Your task to perform on an android device: turn on the 24-hour format for clock Image 0: 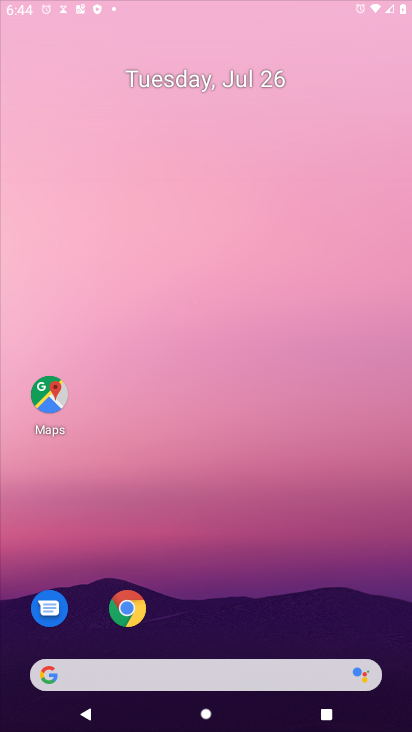
Step 0: press home button
Your task to perform on an android device: turn on the 24-hour format for clock Image 1: 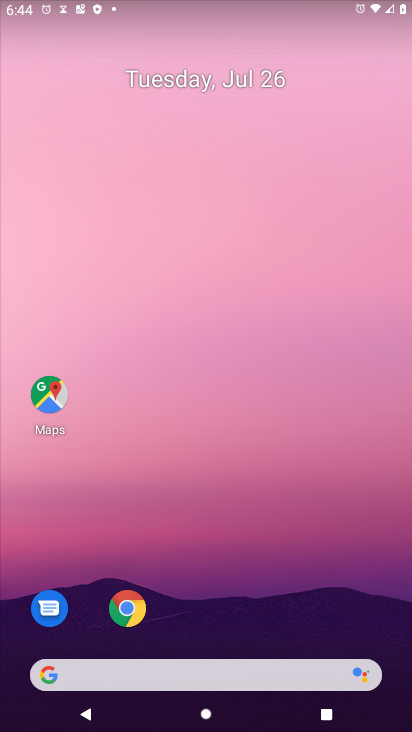
Step 1: drag from (235, 609) to (253, 68)
Your task to perform on an android device: turn on the 24-hour format for clock Image 2: 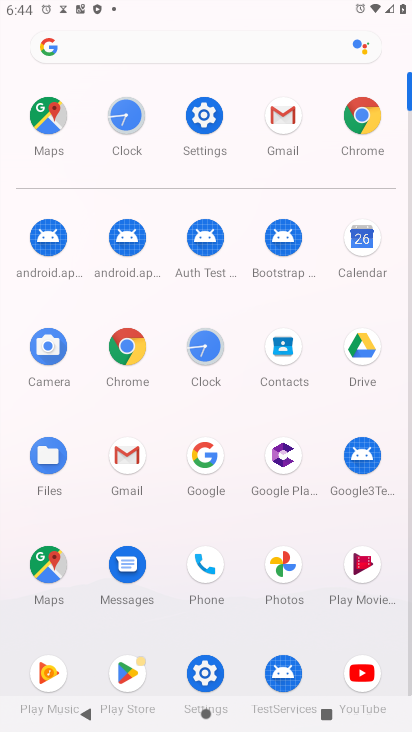
Step 2: click (194, 112)
Your task to perform on an android device: turn on the 24-hour format for clock Image 3: 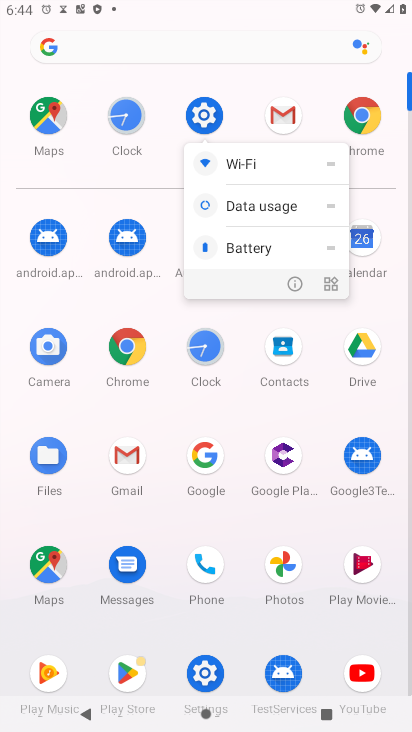
Step 3: click (194, 116)
Your task to perform on an android device: turn on the 24-hour format for clock Image 4: 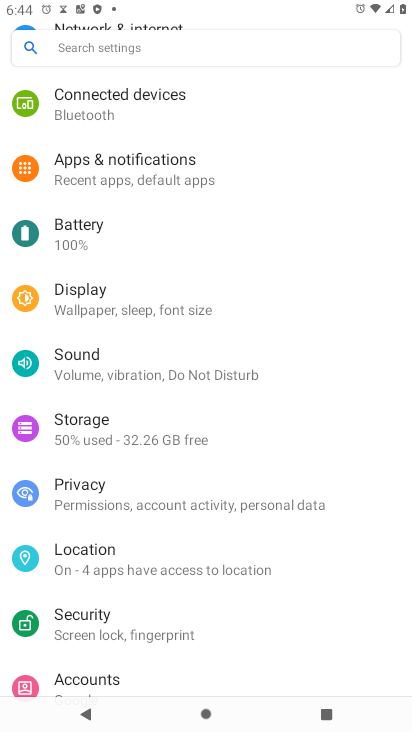
Step 4: drag from (267, 578) to (269, 247)
Your task to perform on an android device: turn on the 24-hour format for clock Image 5: 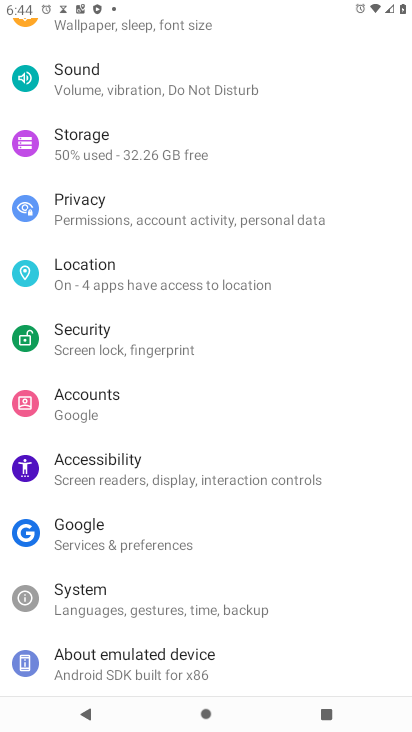
Step 5: click (128, 605)
Your task to perform on an android device: turn on the 24-hour format for clock Image 6: 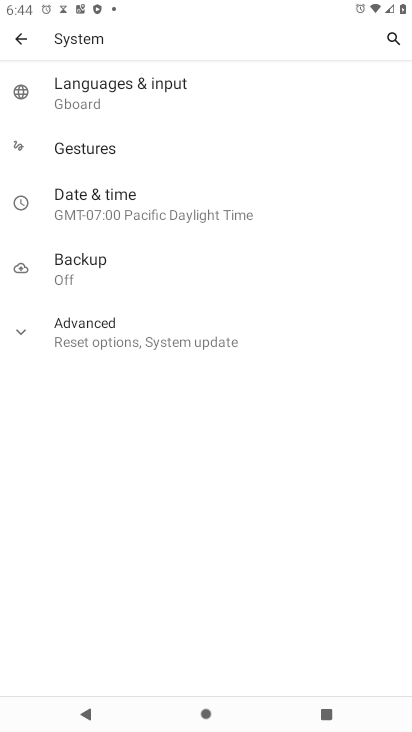
Step 6: click (144, 218)
Your task to perform on an android device: turn on the 24-hour format for clock Image 7: 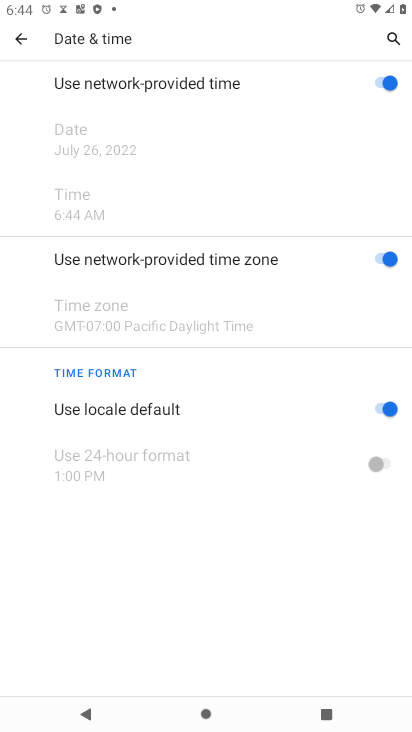
Step 7: click (389, 410)
Your task to perform on an android device: turn on the 24-hour format for clock Image 8: 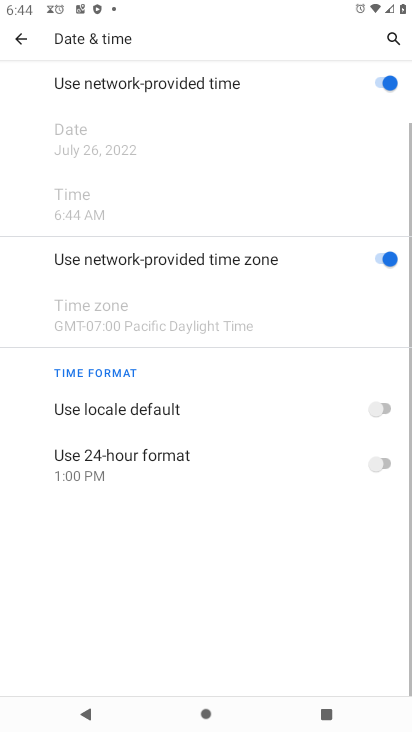
Step 8: click (370, 465)
Your task to perform on an android device: turn on the 24-hour format for clock Image 9: 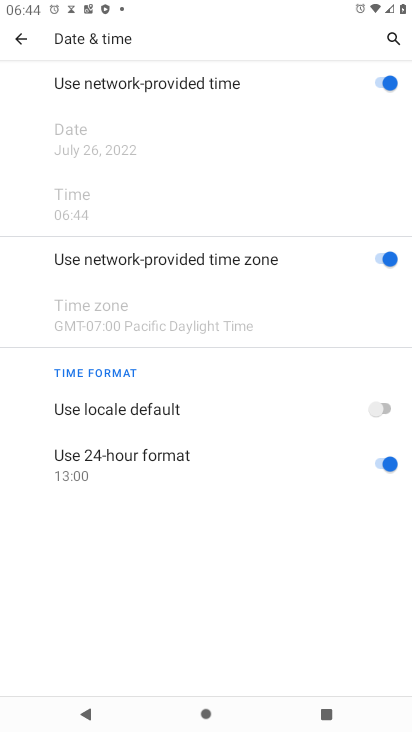
Step 9: task complete